Your task to perform on an android device: turn off airplane mode Image 0: 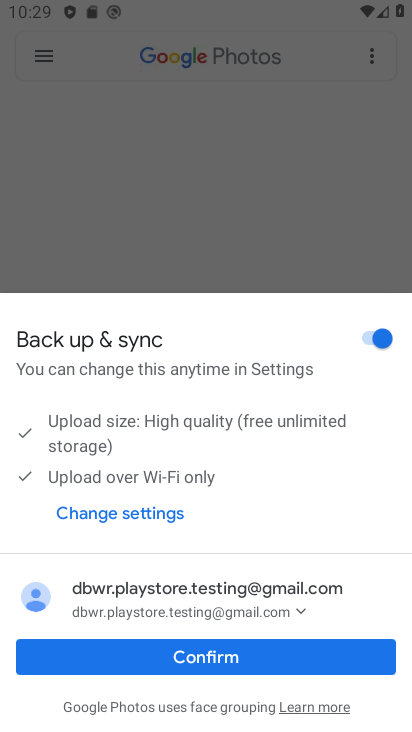
Step 0: press home button
Your task to perform on an android device: turn off airplane mode Image 1: 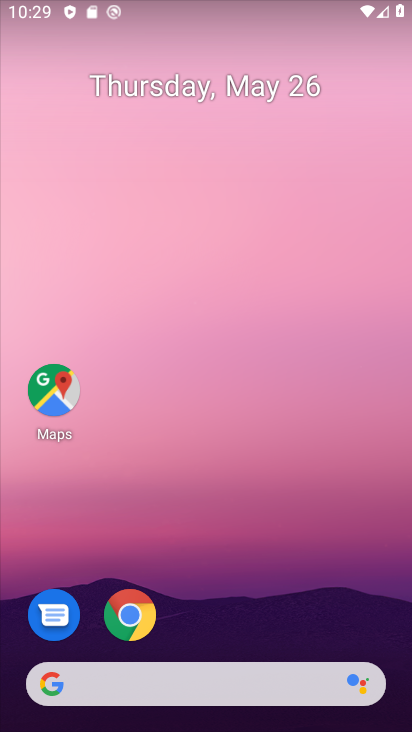
Step 1: task complete